Your task to perform on an android device: Open the calendar app, open the side menu, and click the "Day" option Image 0: 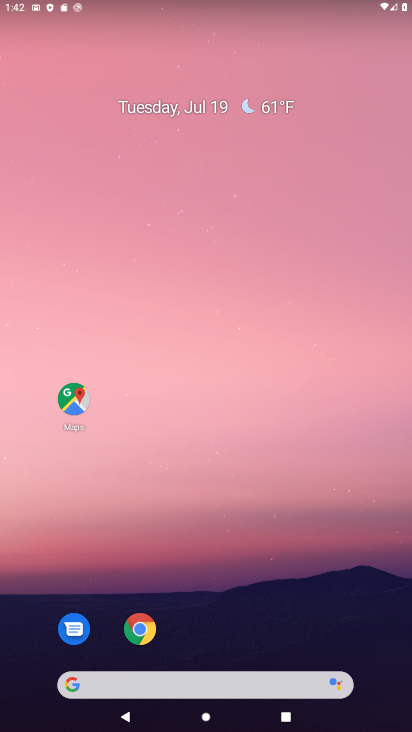
Step 0: drag from (381, 647) to (361, 238)
Your task to perform on an android device: Open the calendar app, open the side menu, and click the "Day" option Image 1: 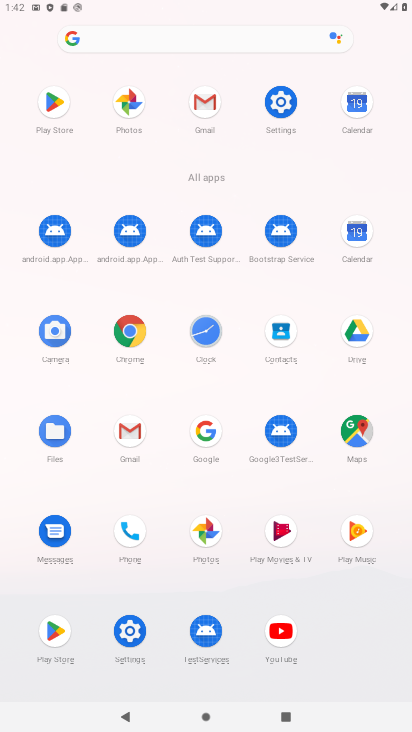
Step 1: click (357, 233)
Your task to perform on an android device: Open the calendar app, open the side menu, and click the "Day" option Image 2: 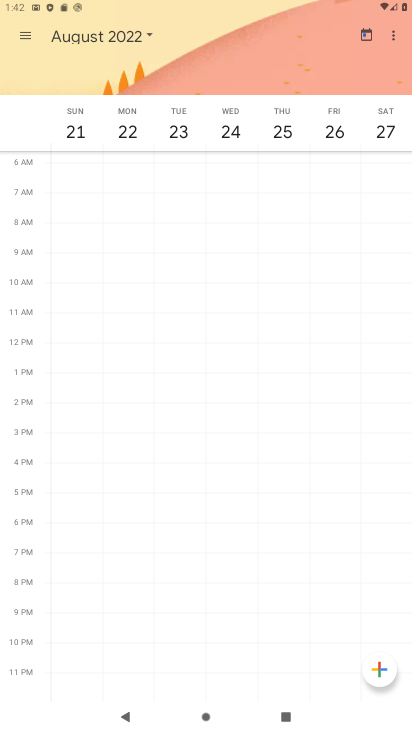
Step 2: click (21, 35)
Your task to perform on an android device: Open the calendar app, open the side menu, and click the "Day" option Image 3: 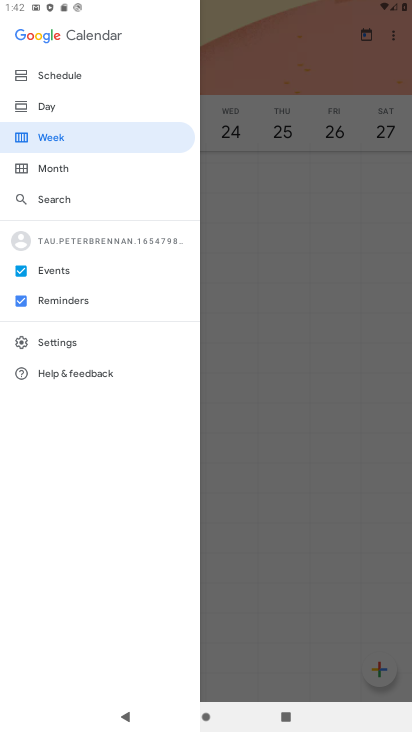
Step 3: click (43, 107)
Your task to perform on an android device: Open the calendar app, open the side menu, and click the "Day" option Image 4: 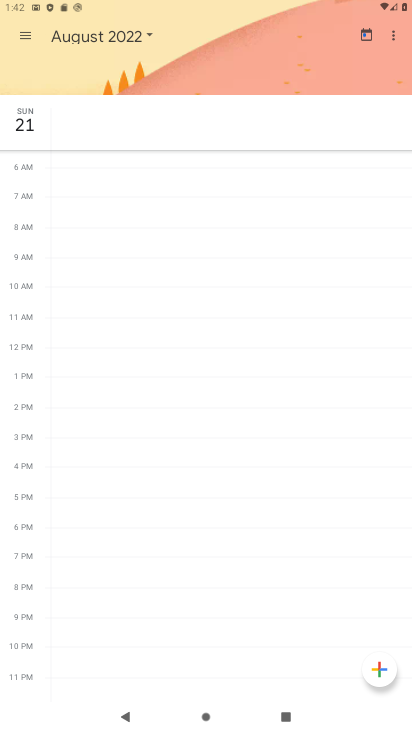
Step 4: task complete